Your task to perform on an android device: Go to display settings Image 0: 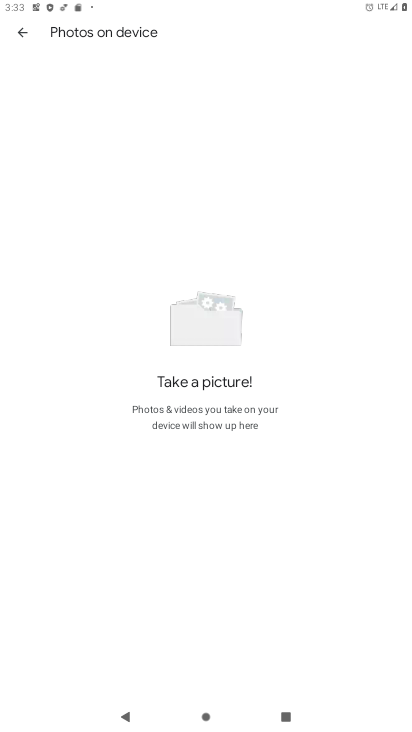
Step 0: press home button
Your task to perform on an android device: Go to display settings Image 1: 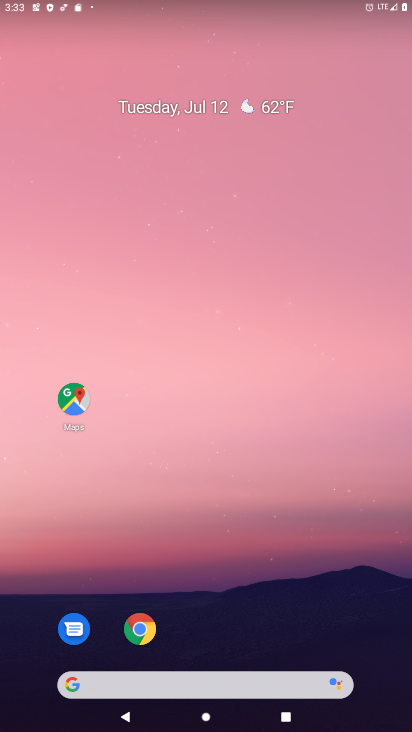
Step 1: drag from (183, 501) to (187, 56)
Your task to perform on an android device: Go to display settings Image 2: 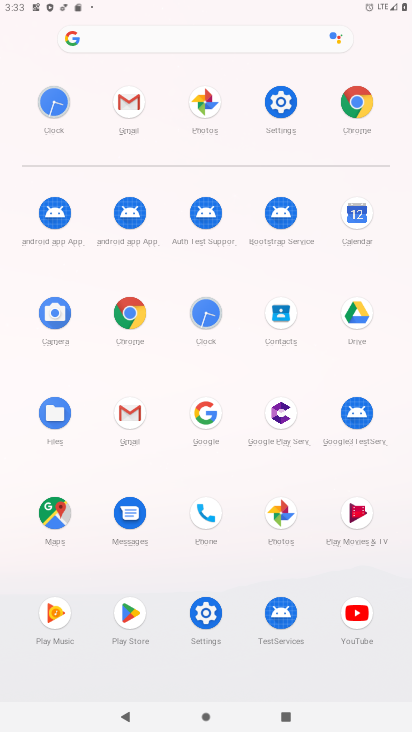
Step 2: click (271, 101)
Your task to perform on an android device: Go to display settings Image 3: 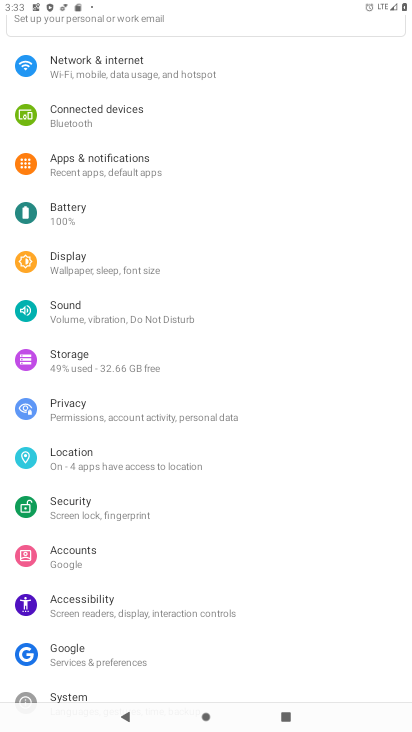
Step 3: click (60, 257)
Your task to perform on an android device: Go to display settings Image 4: 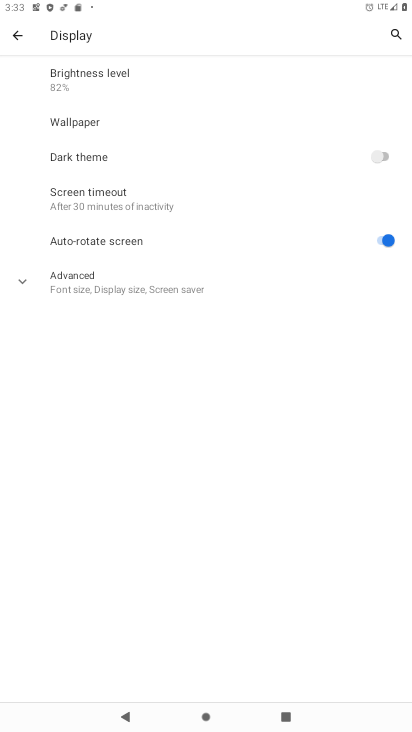
Step 4: task complete